Your task to perform on an android device: turn vacation reply on in the gmail app Image 0: 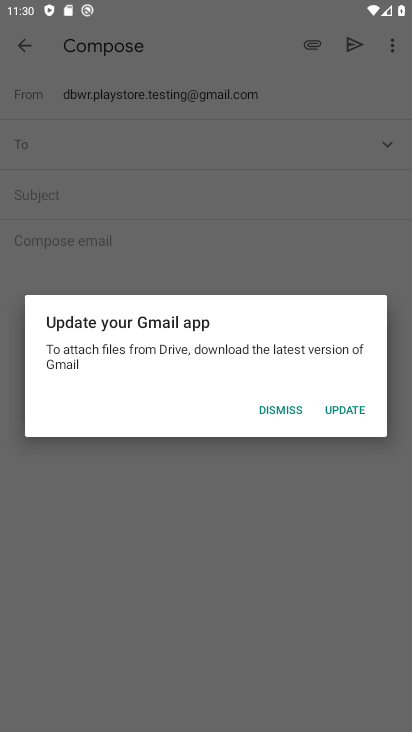
Step 0: press home button
Your task to perform on an android device: turn vacation reply on in the gmail app Image 1: 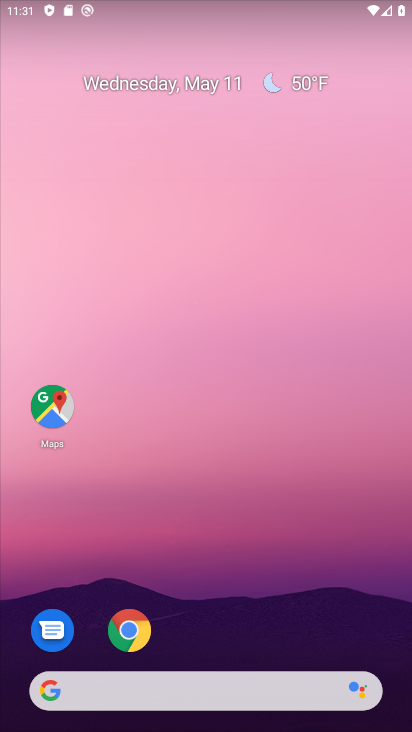
Step 1: drag from (225, 707) to (225, 163)
Your task to perform on an android device: turn vacation reply on in the gmail app Image 2: 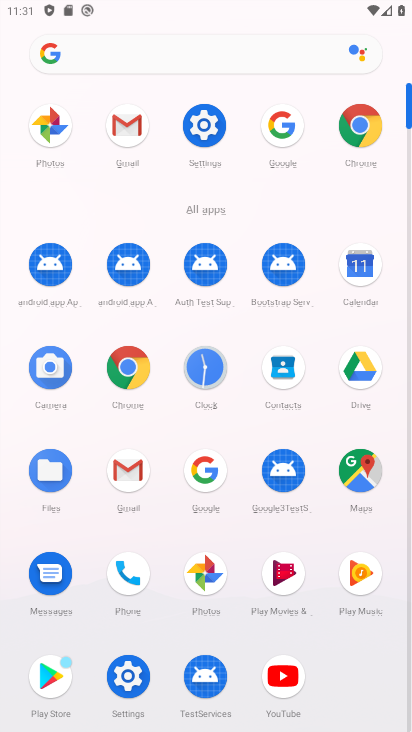
Step 2: click (132, 467)
Your task to perform on an android device: turn vacation reply on in the gmail app Image 3: 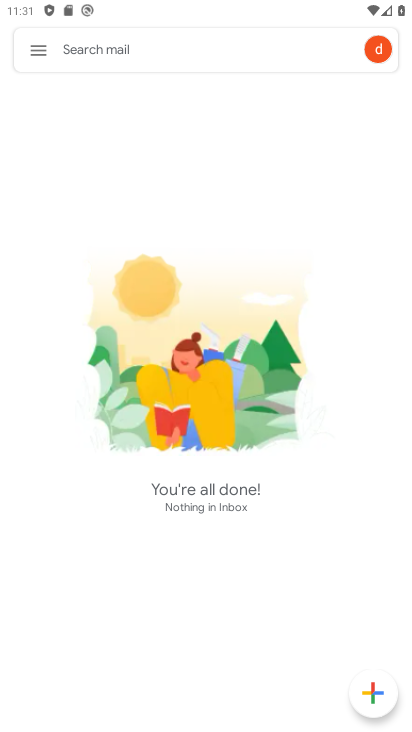
Step 3: click (39, 47)
Your task to perform on an android device: turn vacation reply on in the gmail app Image 4: 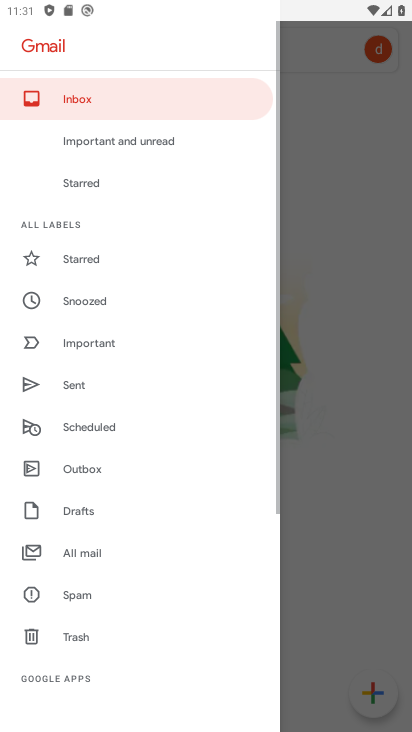
Step 4: drag from (142, 643) to (138, 216)
Your task to perform on an android device: turn vacation reply on in the gmail app Image 5: 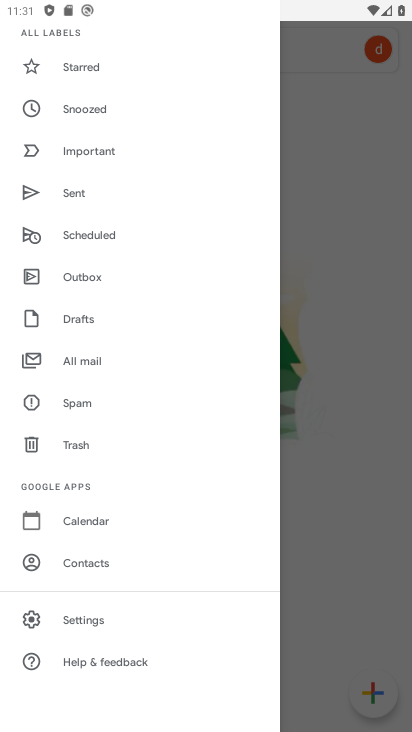
Step 5: click (72, 616)
Your task to perform on an android device: turn vacation reply on in the gmail app Image 6: 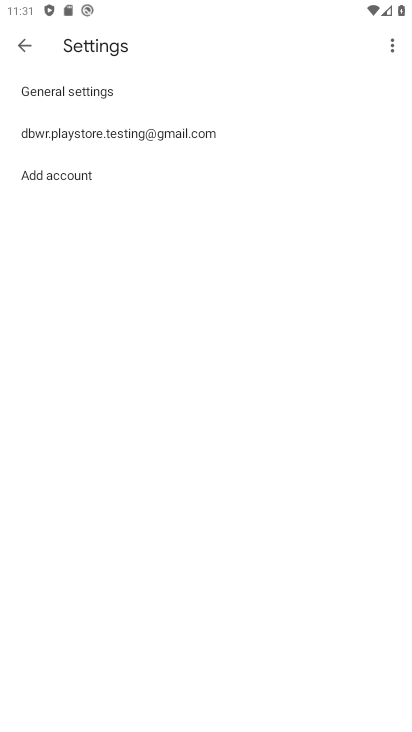
Step 6: click (68, 128)
Your task to perform on an android device: turn vacation reply on in the gmail app Image 7: 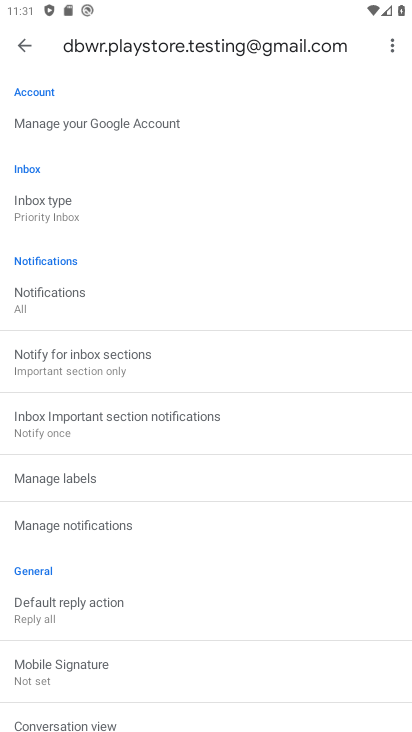
Step 7: drag from (128, 654) to (165, 410)
Your task to perform on an android device: turn vacation reply on in the gmail app Image 8: 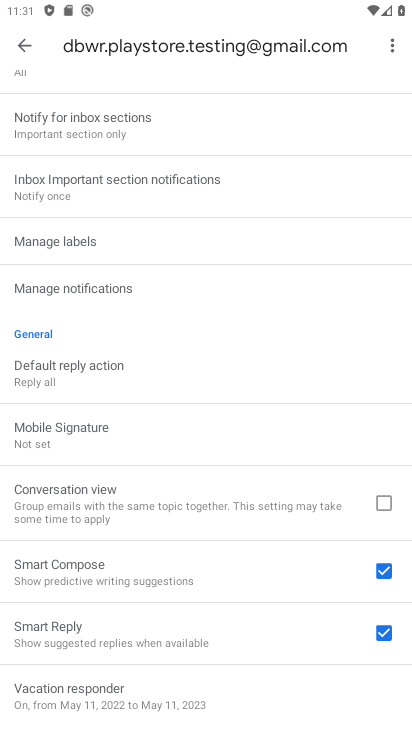
Step 8: drag from (109, 660) to (131, 387)
Your task to perform on an android device: turn vacation reply on in the gmail app Image 9: 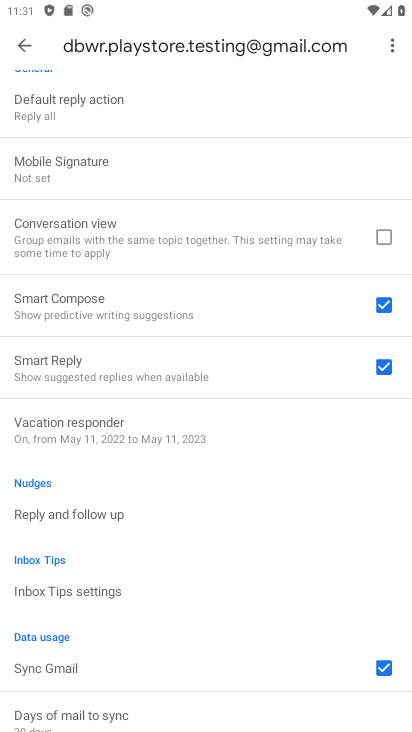
Step 9: click (88, 433)
Your task to perform on an android device: turn vacation reply on in the gmail app Image 10: 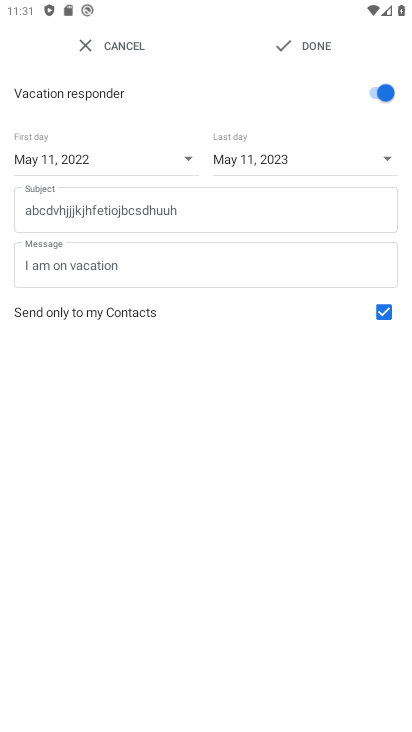
Step 10: task complete